Your task to perform on an android device: Open Wikipedia Image 0: 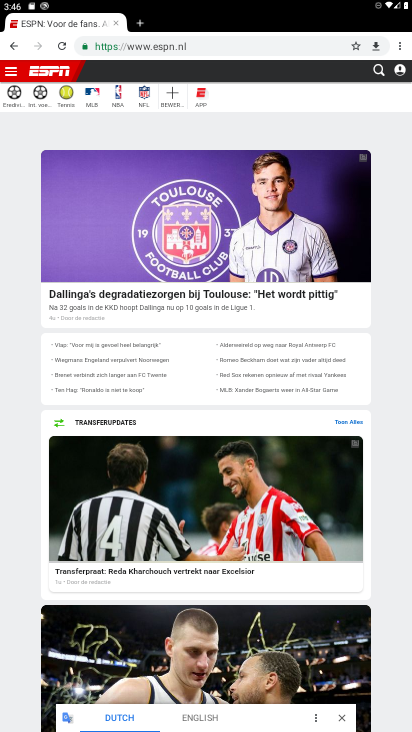
Step 0: press home button
Your task to perform on an android device: Open Wikipedia Image 1: 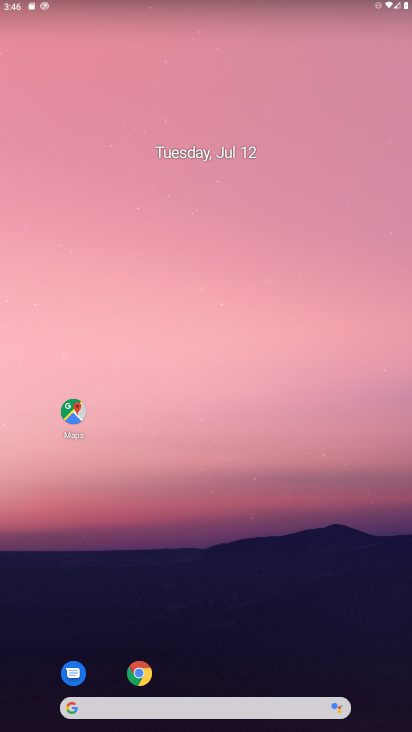
Step 1: click (139, 677)
Your task to perform on an android device: Open Wikipedia Image 2: 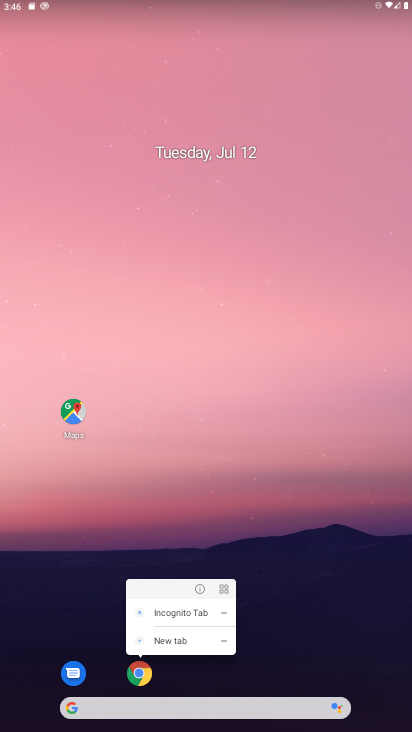
Step 2: click (139, 677)
Your task to perform on an android device: Open Wikipedia Image 3: 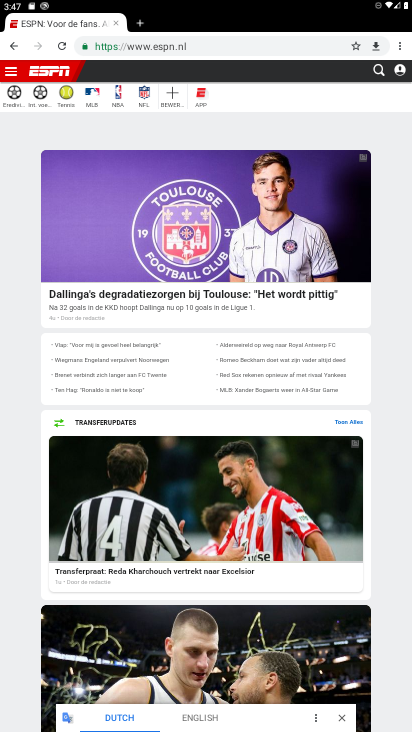
Step 3: click (267, 42)
Your task to perform on an android device: Open Wikipedia Image 4: 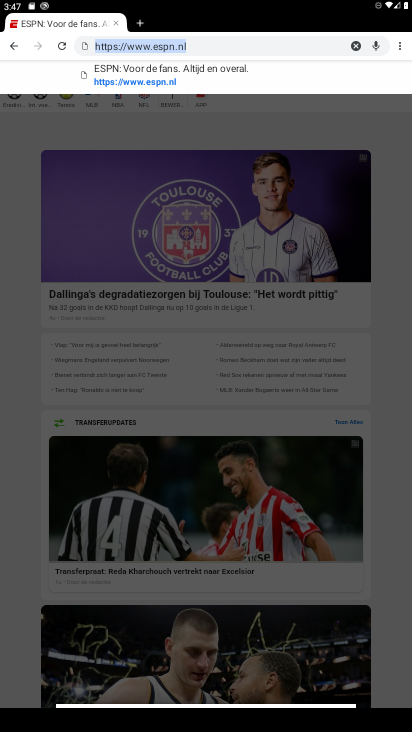
Step 4: type "Wikipedia"
Your task to perform on an android device: Open Wikipedia Image 5: 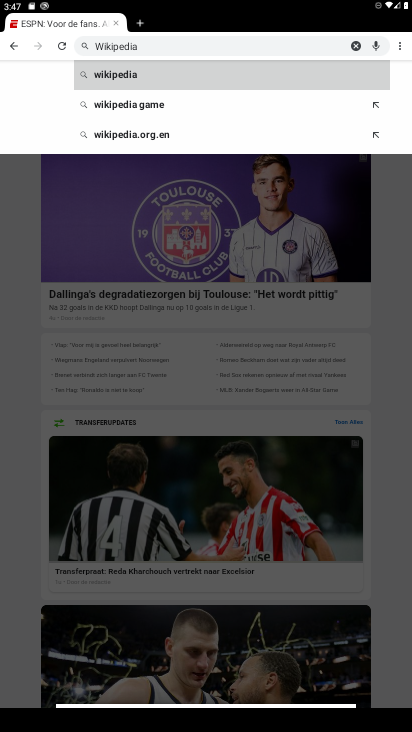
Step 5: click (163, 69)
Your task to perform on an android device: Open Wikipedia Image 6: 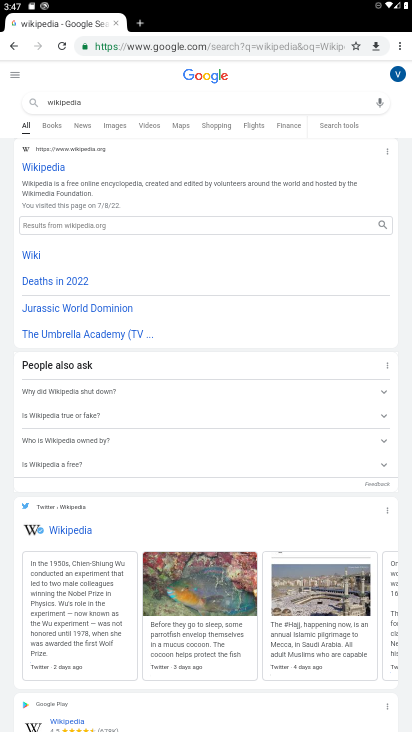
Step 6: click (48, 166)
Your task to perform on an android device: Open Wikipedia Image 7: 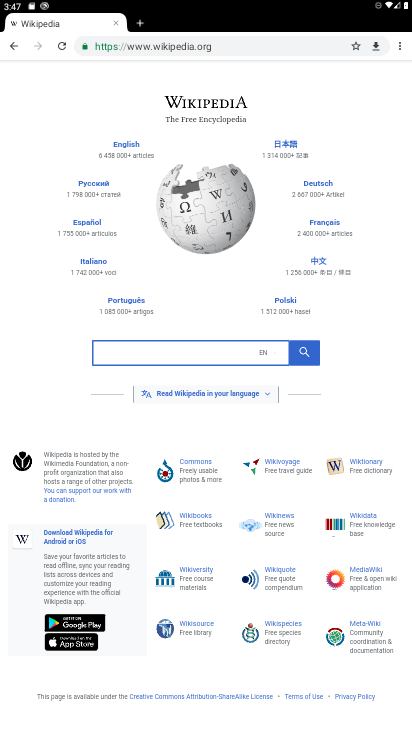
Step 7: task complete